Your task to perform on an android device: change notifications settings Image 0: 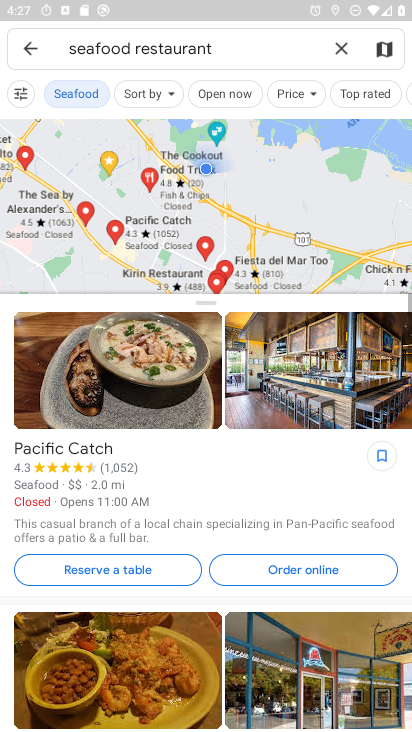
Step 0: press home button
Your task to perform on an android device: change notifications settings Image 1: 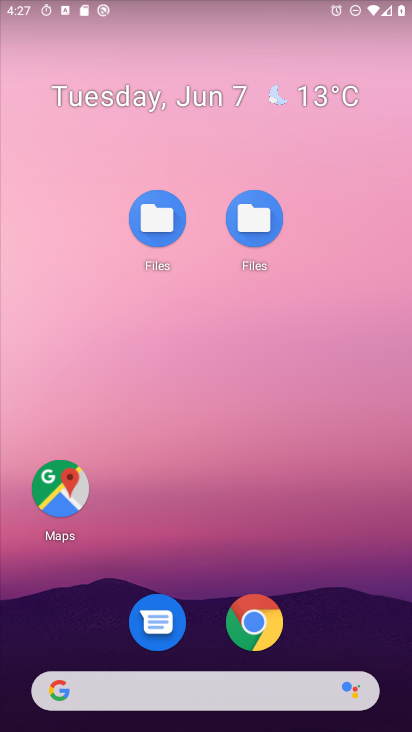
Step 1: drag from (335, 602) to (392, 137)
Your task to perform on an android device: change notifications settings Image 2: 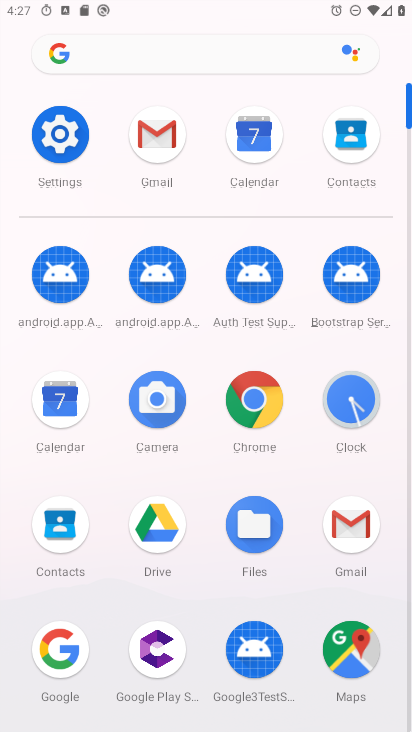
Step 2: click (60, 146)
Your task to perform on an android device: change notifications settings Image 3: 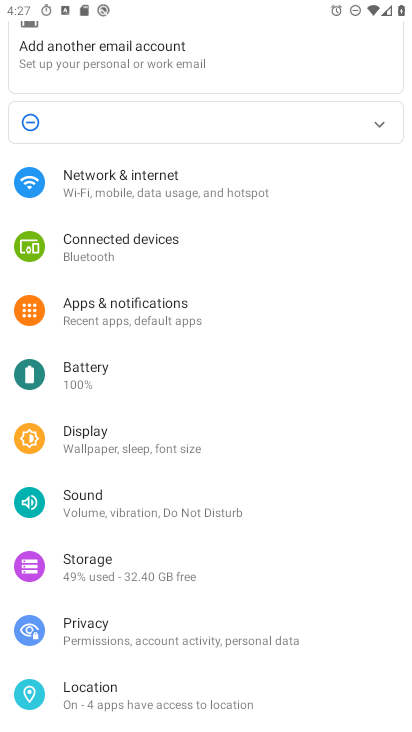
Step 3: click (89, 296)
Your task to perform on an android device: change notifications settings Image 4: 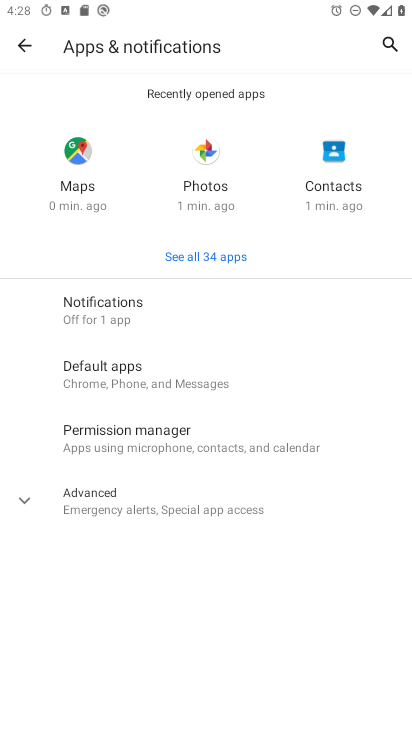
Step 4: click (89, 297)
Your task to perform on an android device: change notifications settings Image 5: 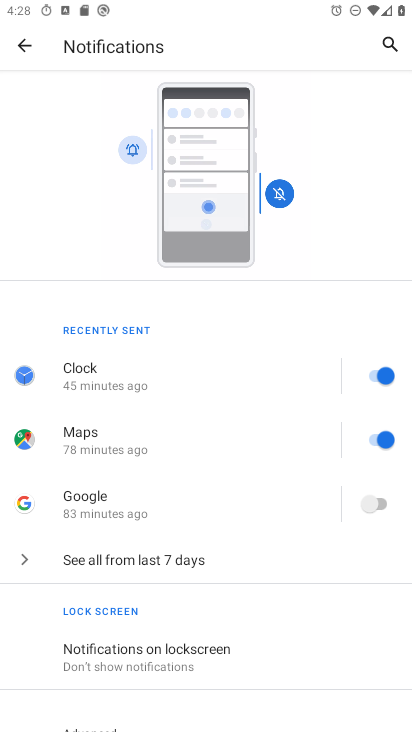
Step 5: click (162, 645)
Your task to perform on an android device: change notifications settings Image 6: 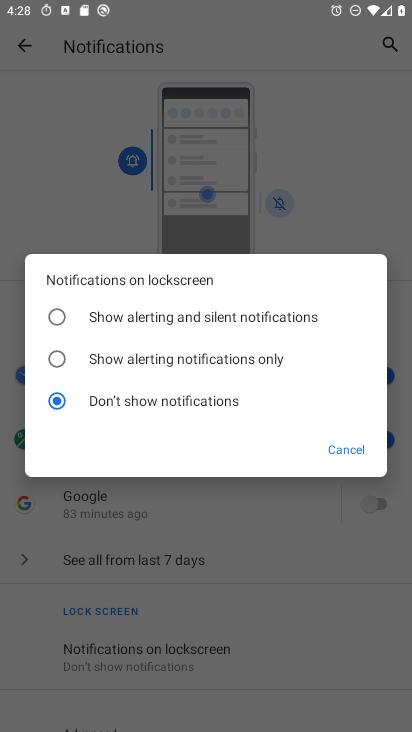
Step 6: click (344, 456)
Your task to perform on an android device: change notifications settings Image 7: 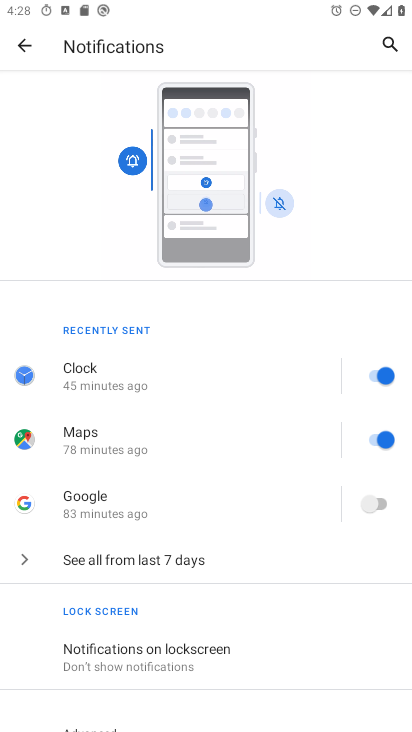
Step 7: drag from (322, 652) to (324, 389)
Your task to perform on an android device: change notifications settings Image 8: 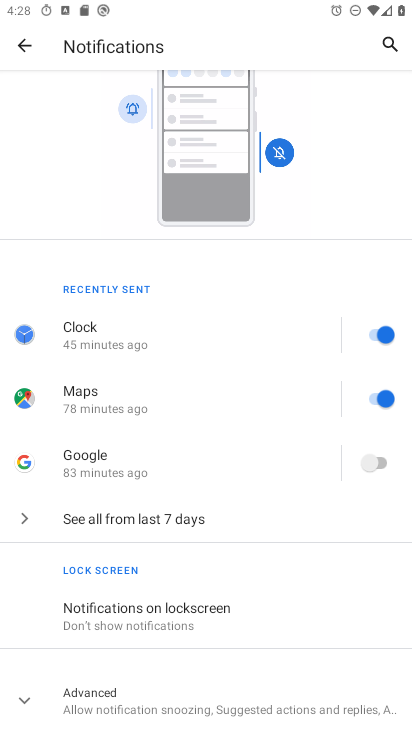
Step 8: click (232, 669)
Your task to perform on an android device: change notifications settings Image 9: 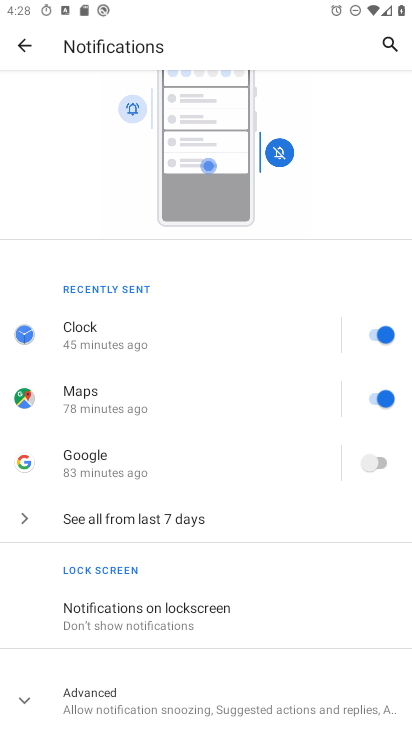
Step 9: click (230, 691)
Your task to perform on an android device: change notifications settings Image 10: 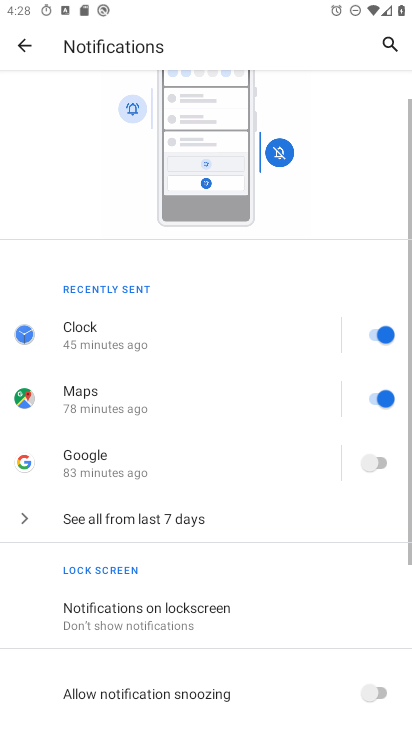
Step 10: task complete